Your task to perform on an android device: change keyboard looks Image 0: 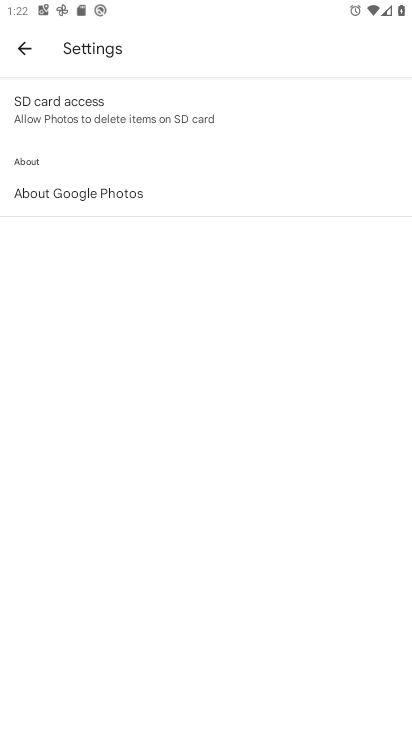
Step 0: drag from (147, 594) to (225, 336)
Your task to perform on an android device: change keyboard looks Image 1: 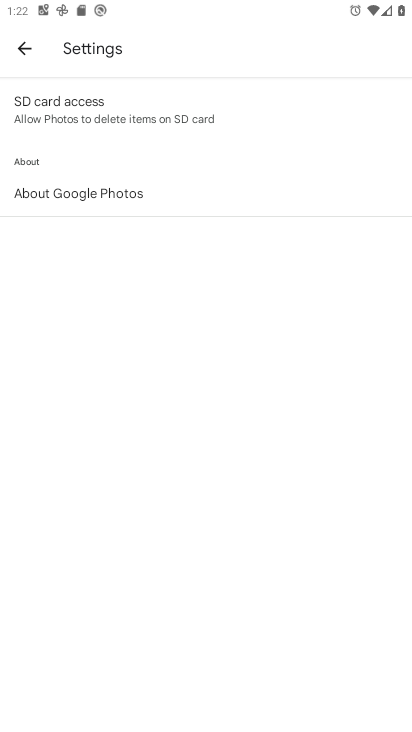
Step 1: press home button
Your task to perform on an android device: change keyboard looks Image 2: 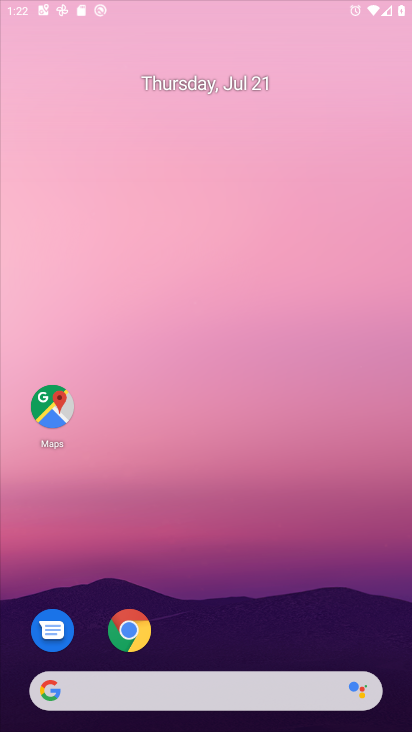
Step 2: drag from (173, 662) to (259, 81)
Your task to perform on an android device: change keyboard looks Image 3: 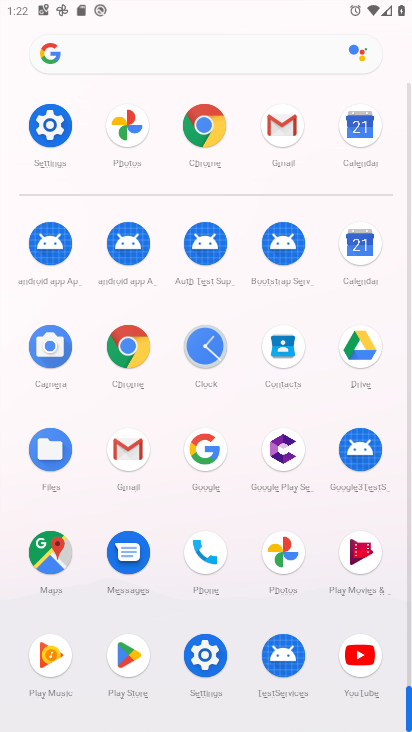
Step 3: click (38, 109)
Your task to perform on an android device: change keyboard looks Image 4: 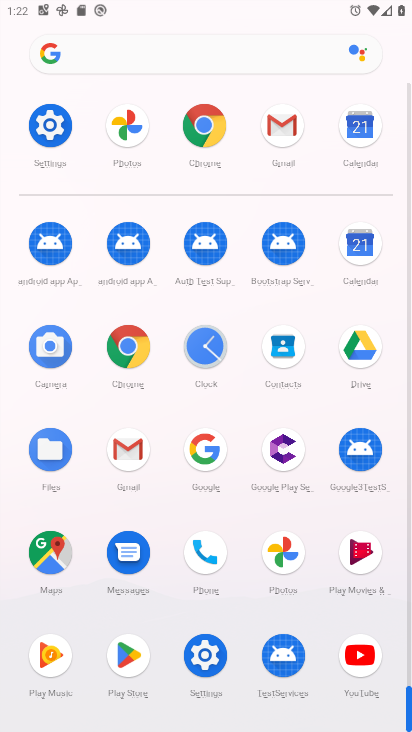
Step 4: click (38, 109)
Your task to perform on an android device: change keyboard looks Image 5: 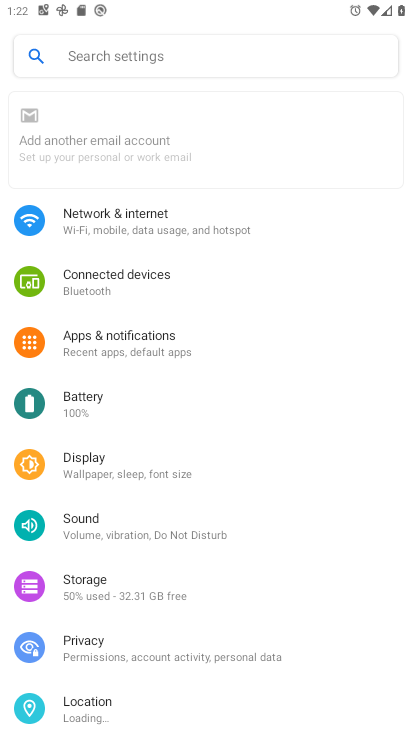
Step 5: drag from (220, 615) to (405, 114)
Your task to perform on an android device: change keyboard looks Image 6: 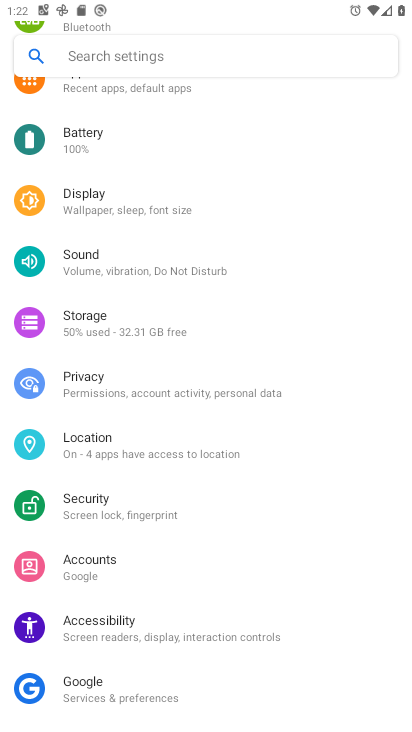
Step 6: drag from (118, 658) to (311, 8)
Your task to perform on an android device: change keyboard looks Image 7: 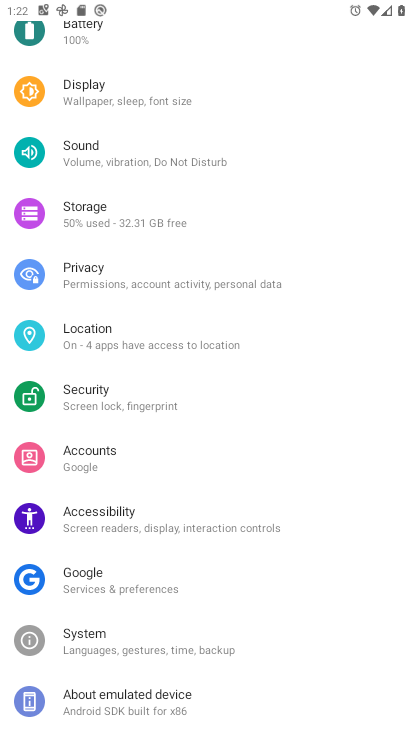
Step 7: click (143, 654)
Your task to perform on an android device: change keyboard looks Image 8: 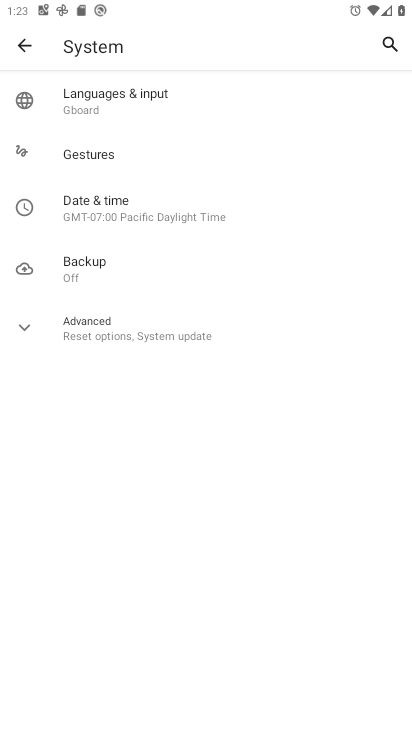
Step 8: click (121, 91)
Your task to perform on an android device: change keyboard looks Image 9: 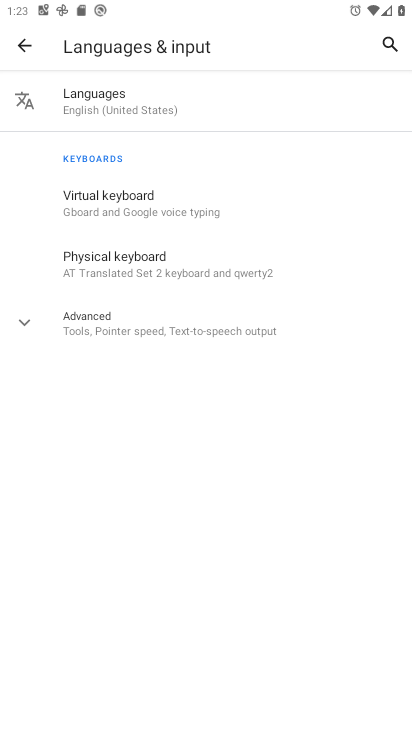
Step 9: click (158, 205)
Your task to perform on an android device: change keyboard looks Image 10: 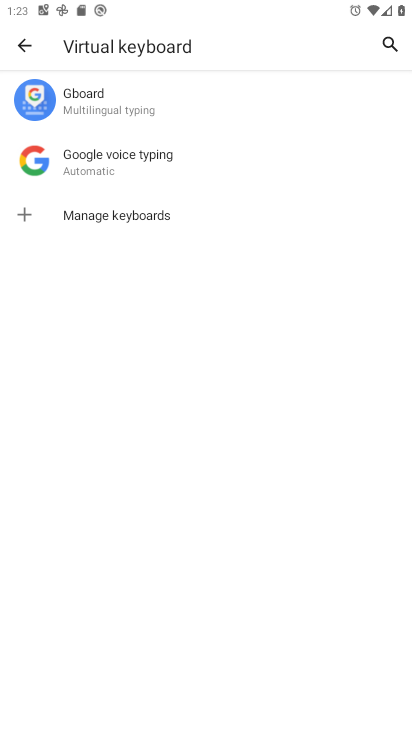
Step 10: click (88, 83)
Your task to perform on an android device: change keyboard looks Image 11: 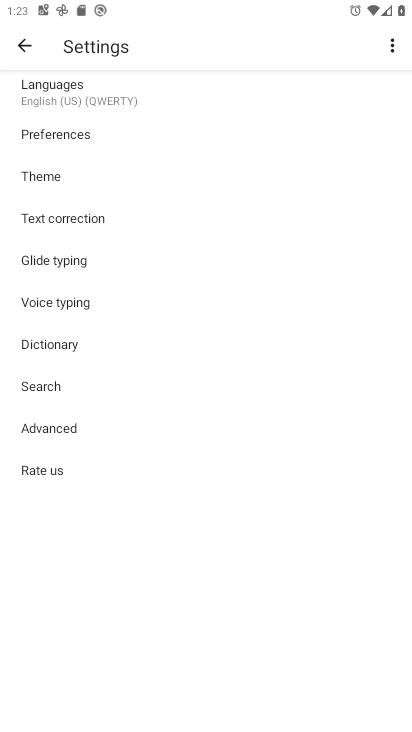
Step 11: click (89, 99)
Your task to perform on an android device: change keyboard looks Image 12: 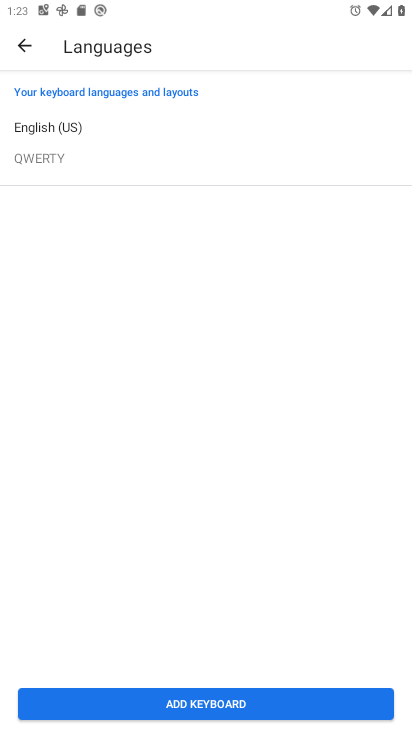
Step 12: click (19, 49)
Your task to perform on an android device: change keyboard looks Image 13: 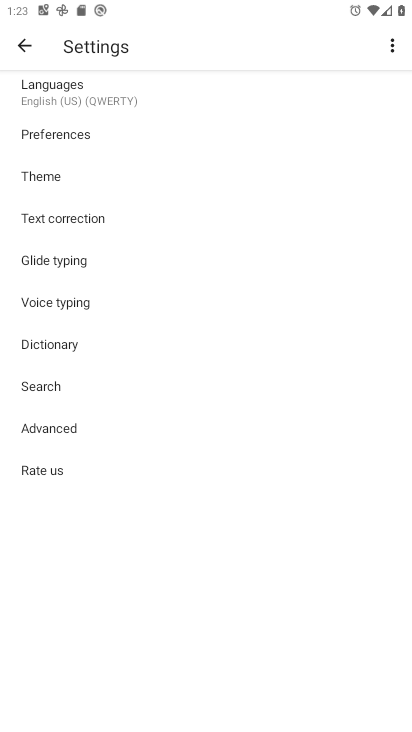
Step 13: click (55, 175)
Your task to perform on an android device: change keyboard looks Image 14: 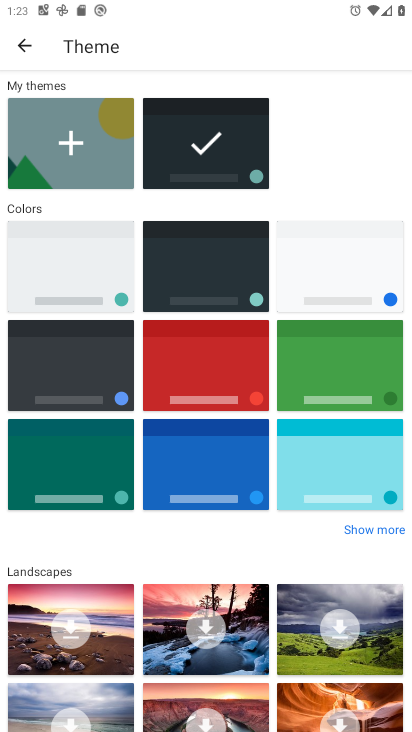
Step 14: click (219, 252)
Your task to perform on an android device: change keyboard looks Image 15: 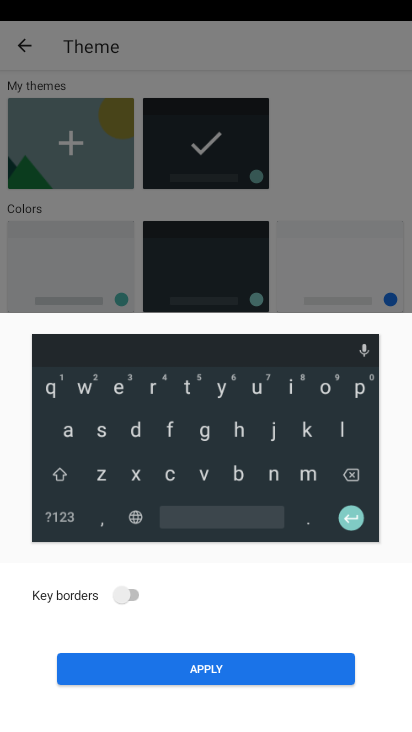
Step 15: click (228, 656)
Your task to perform on an android device: change keyboard looks Image 16: 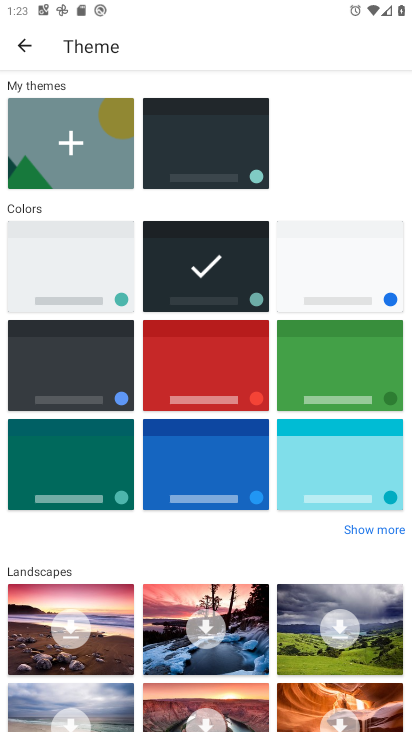
Step 16: task complete